Your task to perform on an android device: turn on data saver in the chrome app Image 0: 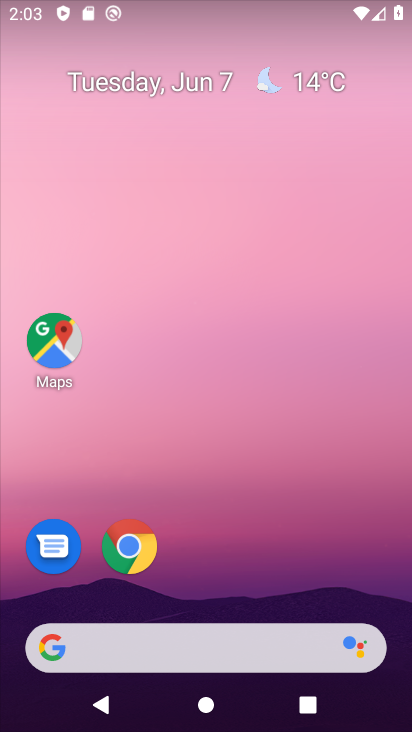
Step 0: click (117, 555)
Your task to perform on an android device: turn on data saver in the chrome app Image 1: 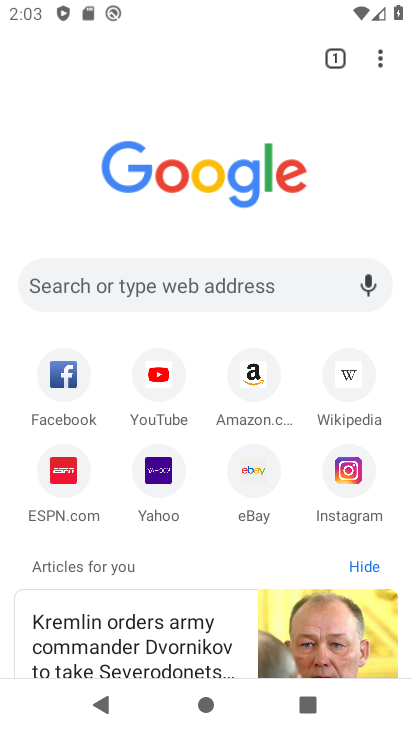
Step 1: click (398, 59)
Your task to perform on an android device: turn on data saver in the chrome app Image 2: 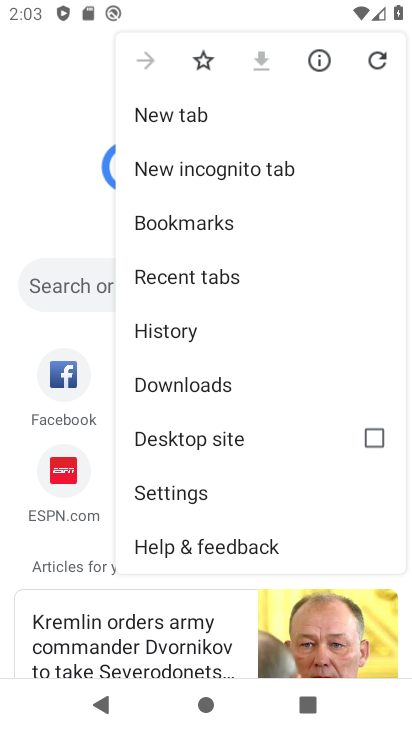
Step 2: click (202, 499)
Your task to perform on an android device: turn on data saver in the chrome app Image 3: 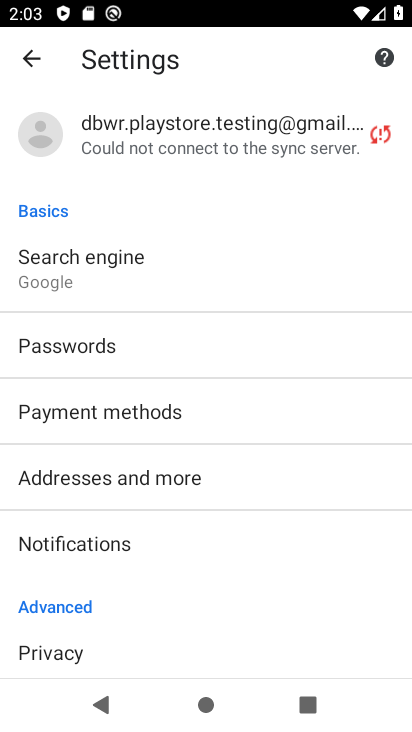
Step 3: drag from (70, 624) to (210, 152)
Your task to perform on an android device: turn on data saver in the chrome app Image 4: 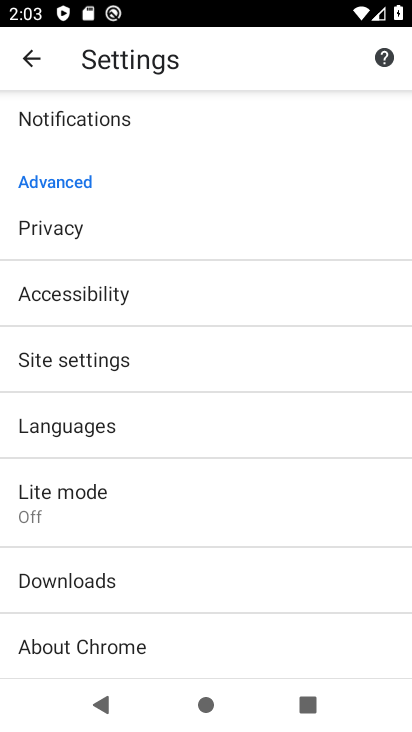
Step 4: click (75, 496)
Your task to perform on an android device: turn on data saver in the chrome app Image 5: 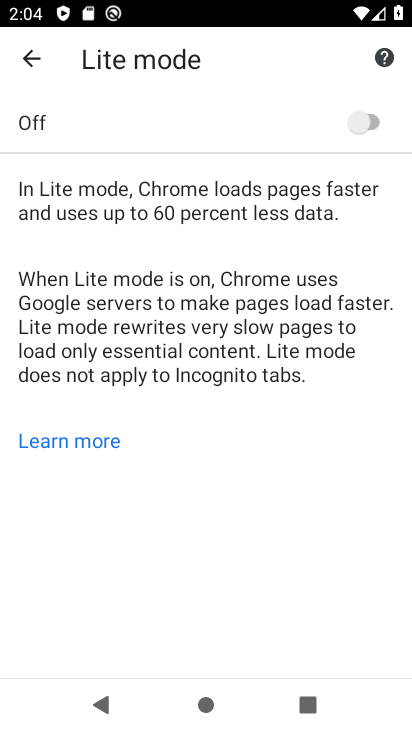
Step 5: task complete